Your task to perform on an android device: Go to privacy settings Image 0: 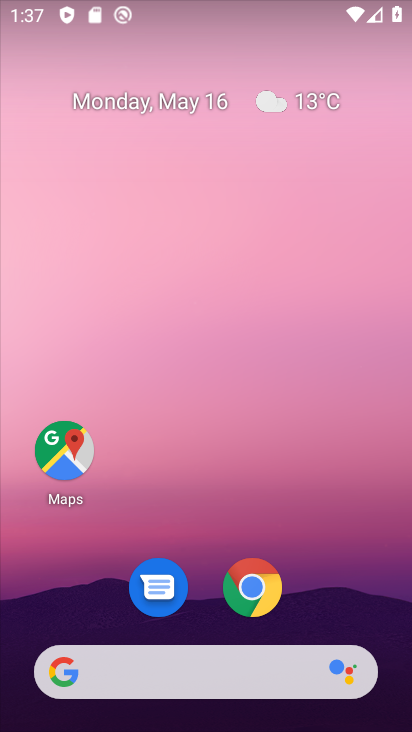
Step 0: drag from (235, 644) to (256, 295)
Your task to perform on an android device: Go to privacy settings Image 1: 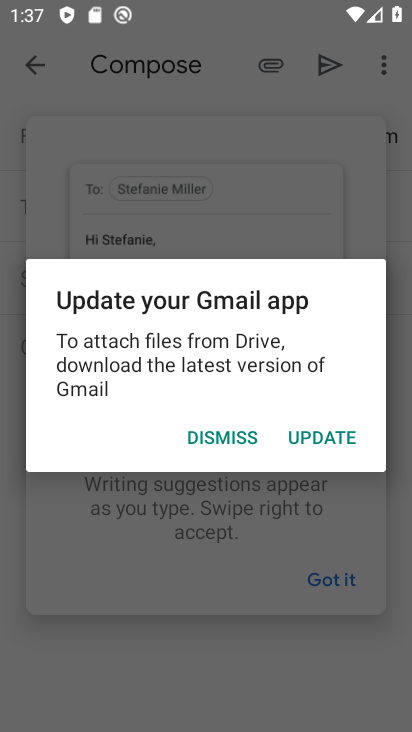
Step 1: click (216, 436)
Your task to perform on an android device: Go to privacy settings Image 2: 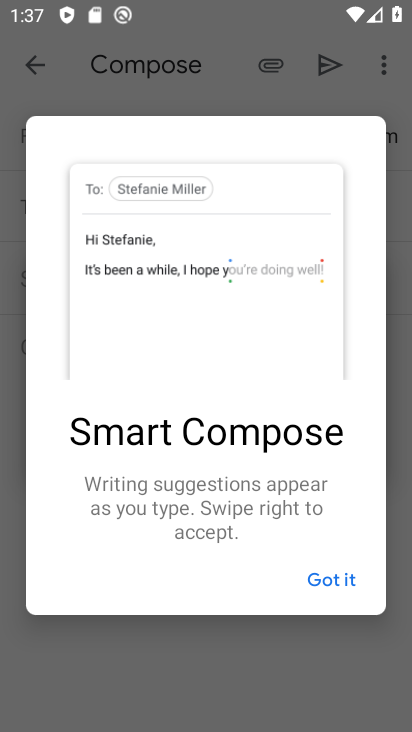
Step 2: click (337, 576)
Your task to perform on an android device: Go to privacy settings Image 3: 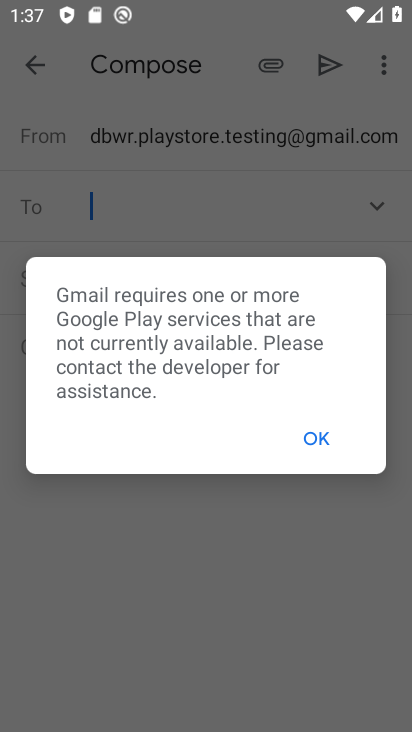
Step 3: click (323, 439)
Your task to perform on an android device: Go to privacy settings Image 4: 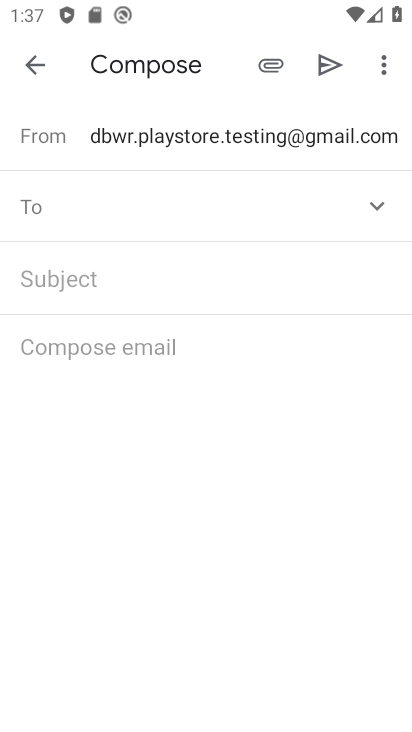
Step 4: press home button
Your task to perform on an android device: Go to privacy settings Image 5: 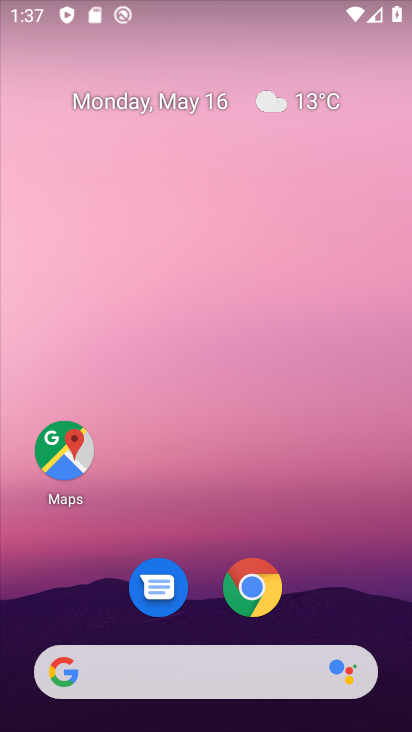
Step 5: drag from (208, 652) to (176, 302)
Your task to perform on an android device: Go to privacy settings Image 6: 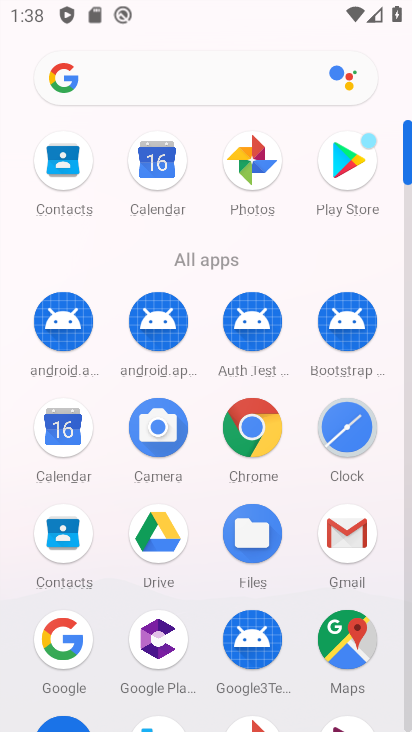
Step 6: drag from (97, 547) to (97, 261)
Your task to perform on an android device: Go to privacy settings Image 7: 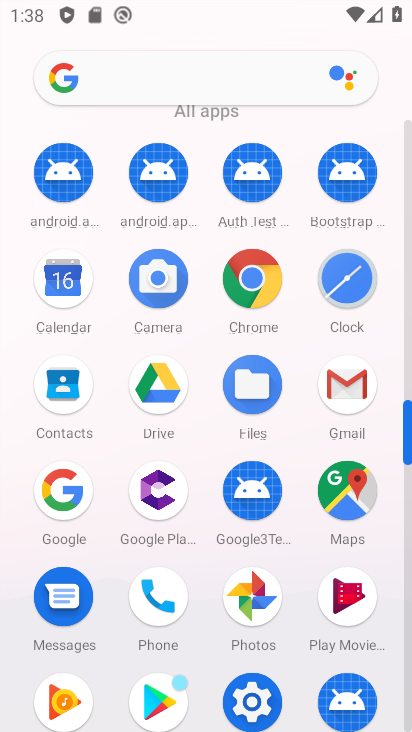
Step 7: click (248, 693)
Your task to perform on an android device: Go to privacy settings Image 8: 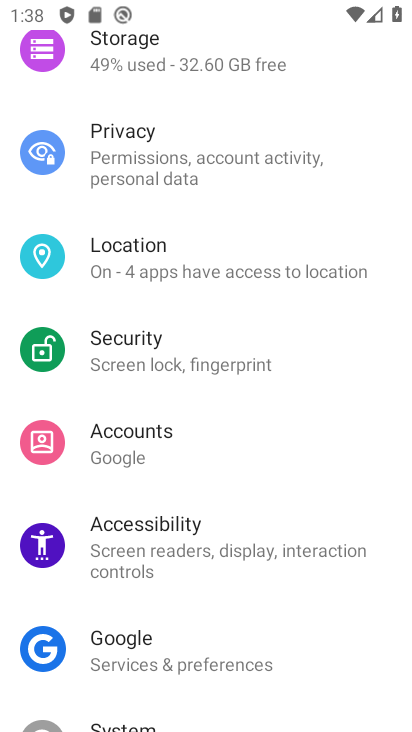
Step 8: drag from (151, 675) to (142, 295)
Your task to perform on an android device: Go to privacy settings Image 9: 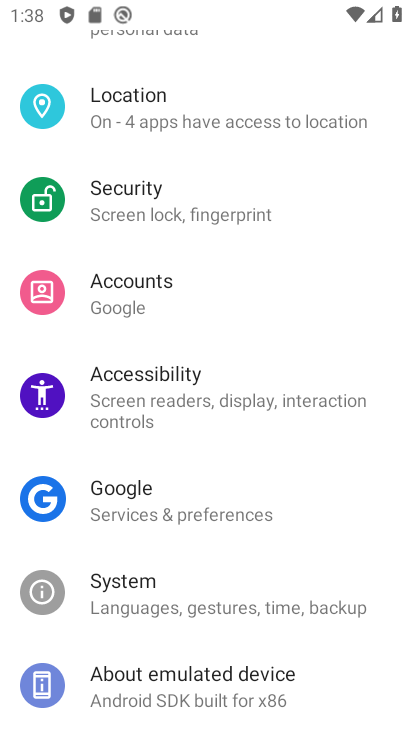
Step 9: drag from (184, 99) to (127, 536)
Your task to perform on an android device: Go to privacy settings Image 10: 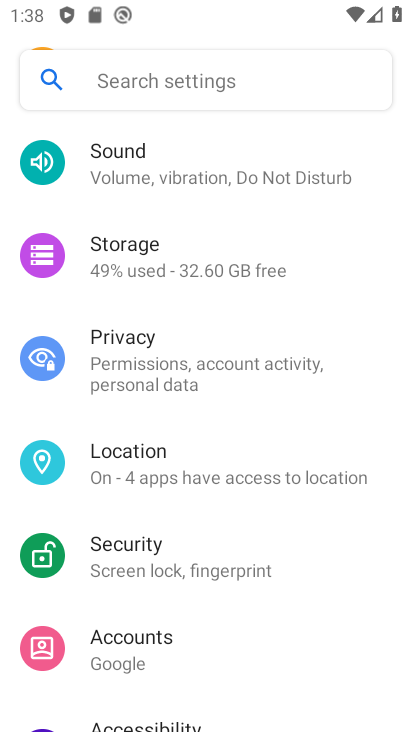
Step 10: drag from (152, 160) to (99, 516)
Your task to perform on an android device: Go to privacy settings Image 11: 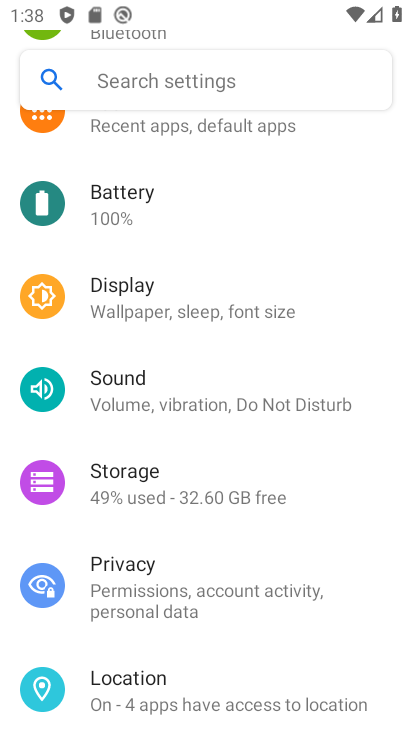
Step 11: drag from (159, 190) to (133, 588)
Your task to perform on an android device: Go to privacy settings Image 12: 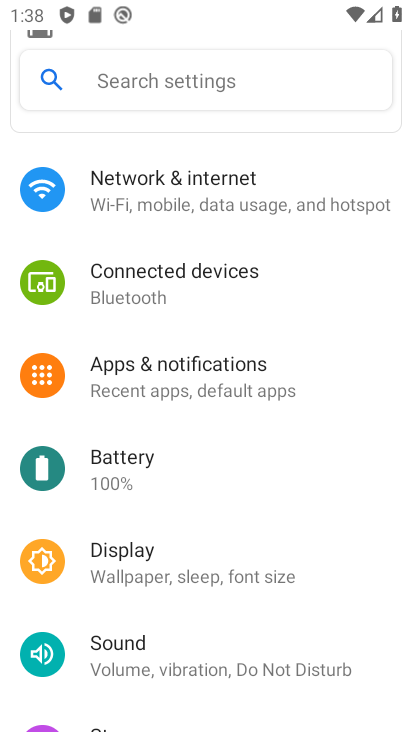
Step 12: drag from (184, 703) to (182, 232)
Your task to perform on an android device: Go to privacy settings Image 13: 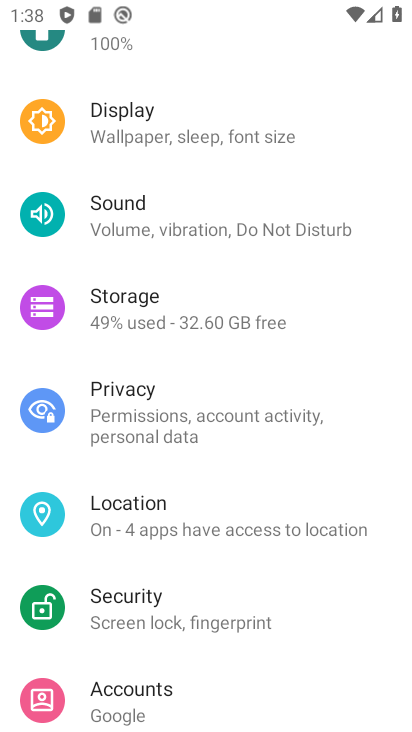
Step 13: click (138, 414)
Your task to perform on an android device: Go to privacy settings Image 14: 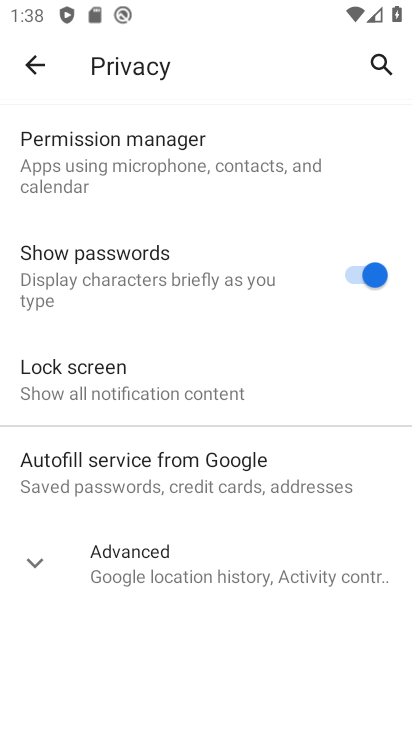
Step 14: click (137, 502)
Your task to perform on an android device: Go to privacy settings Image 15: 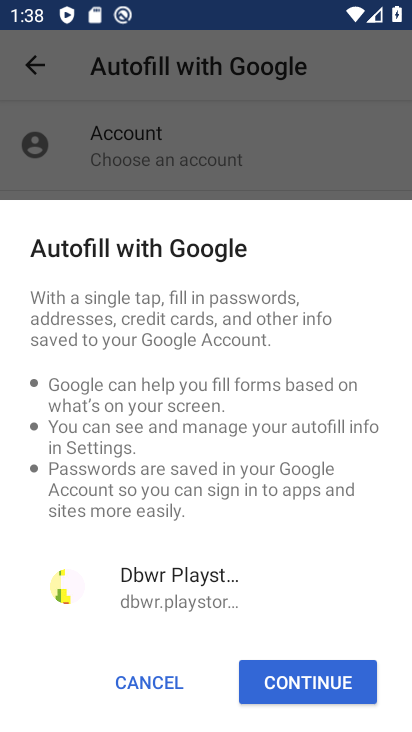
Step 15: click (165, 683)
Your task to perform on an android device: Go to privacy settings Image 16: 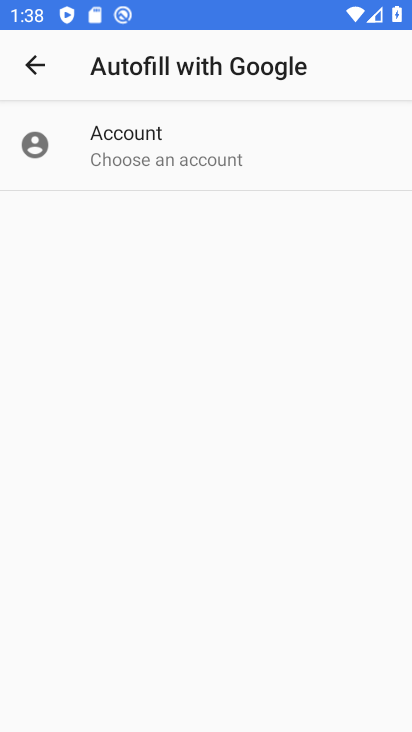
Step 16: click (31, 71)
Your task to perform on an android device: Go to privacy settings Image 17: 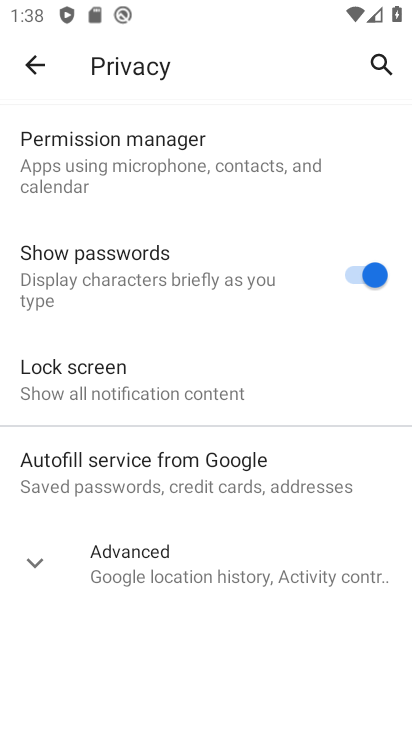
Step 17: click (139, 555)
Your task to perform on an android device: Go to privacy settings Image 18: 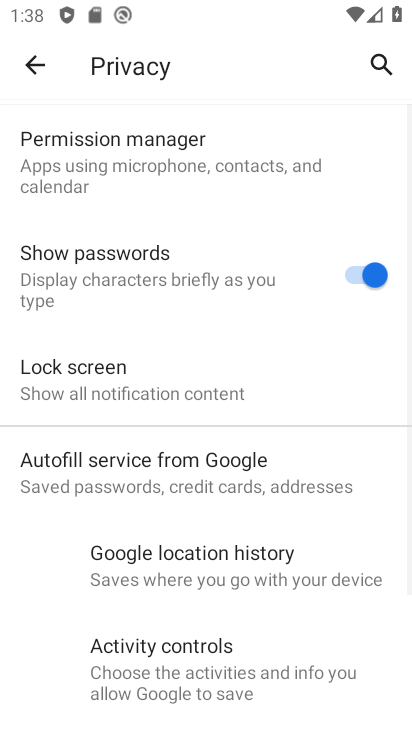
Step 18: task complete